Your task to perform on an android device: turn off location history Image 0: 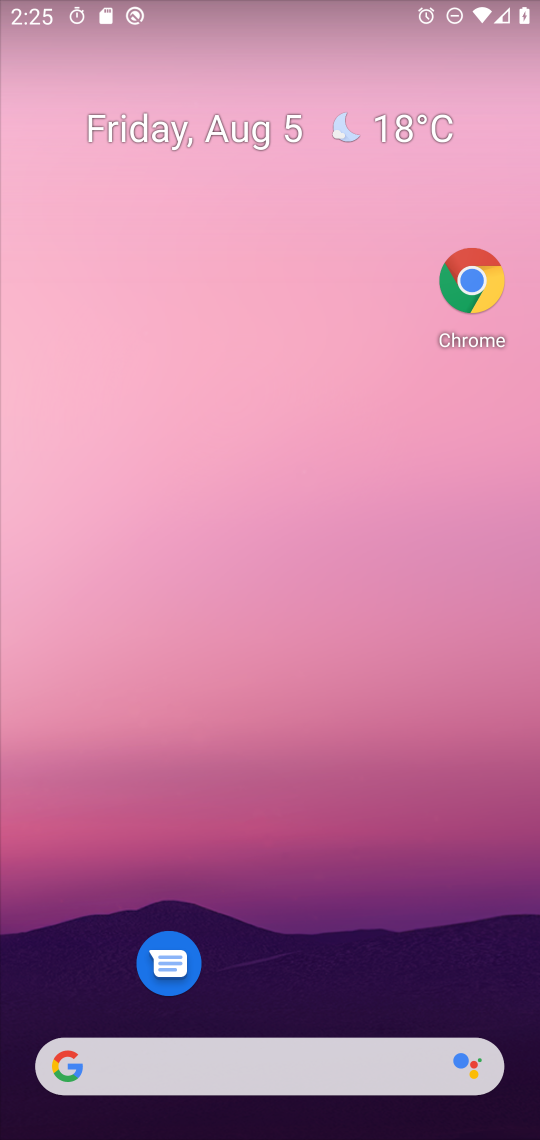
Step 0: drag from (323, 1009) to (263, 127)
Your task to perform on an android device: turn off location history Image 1: 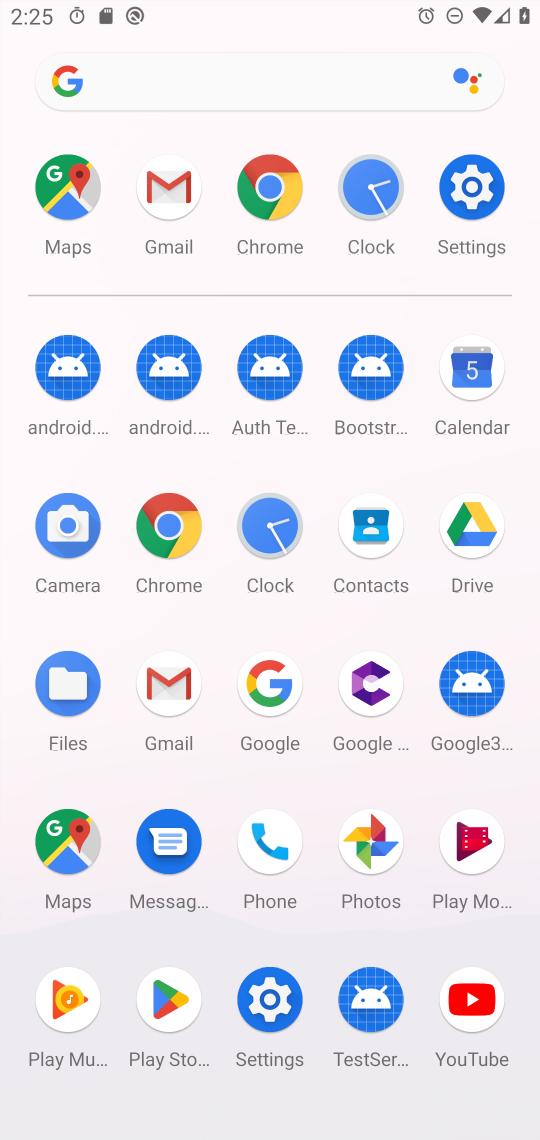
Step 1: click (480, 207)
Your task to perform on an android device: turn off location history Image 2: 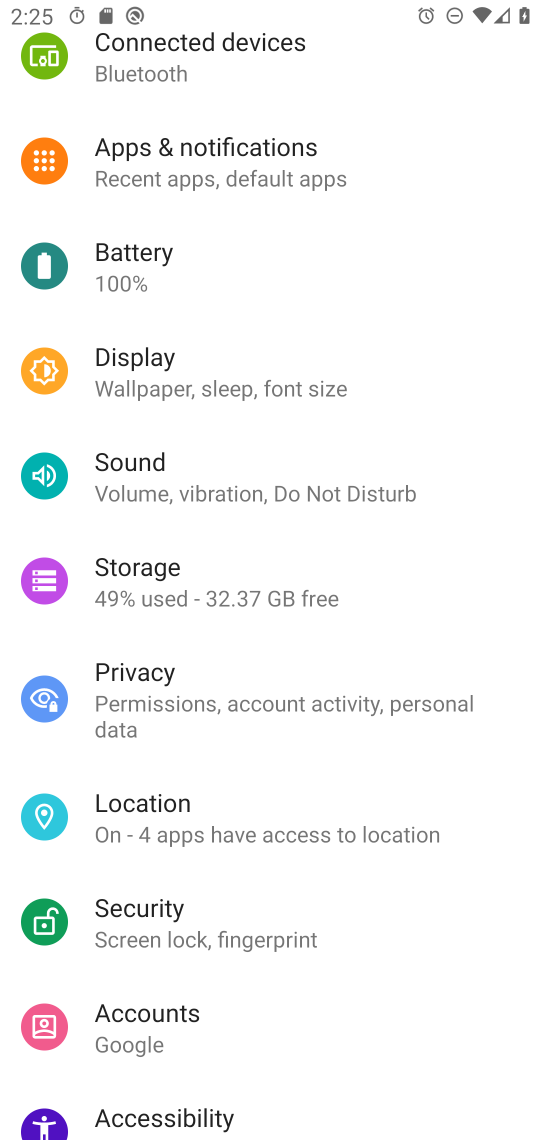
Step 2: click (210, 823)
Your task to perform on an android device: turn off location history Image 3: 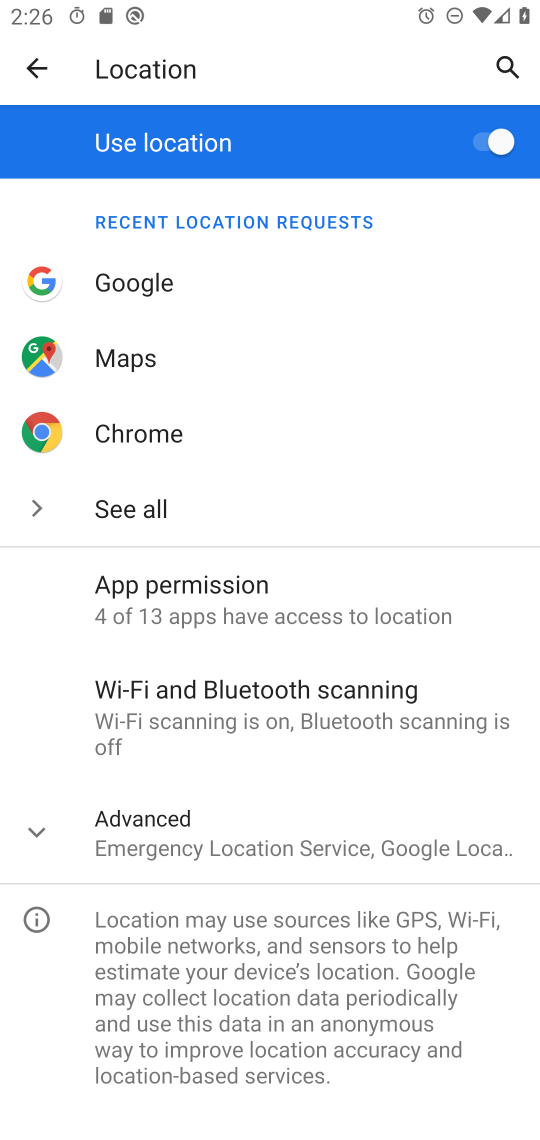
Step 3: click (237, 856)
Your task to perform on an android device: turn off location history Image 4: 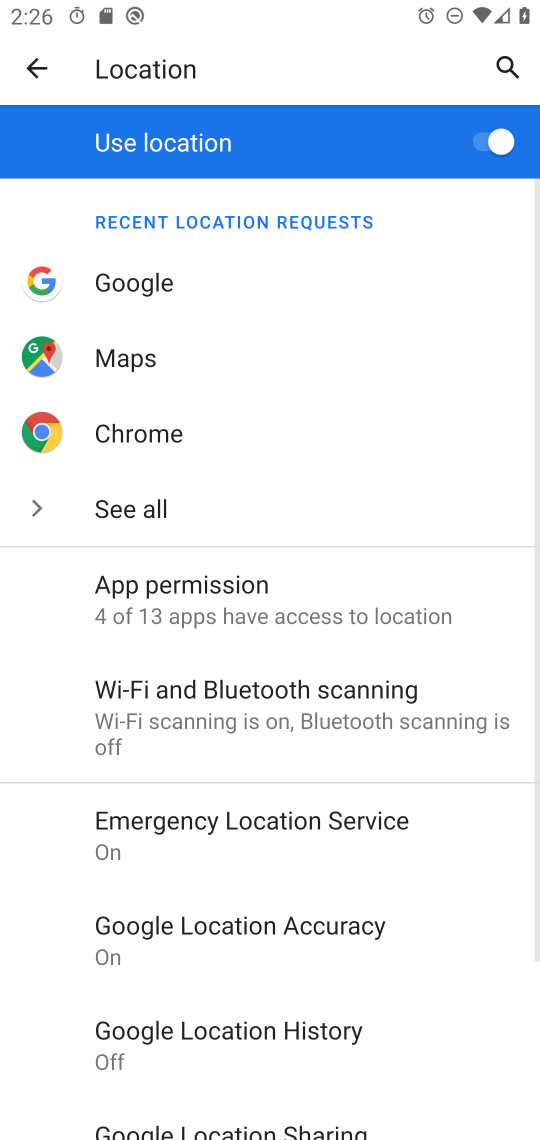
Step 4: drag from (220, 958) to (38, 256)
Your task to perform on an android device: turn off location history Image 5: 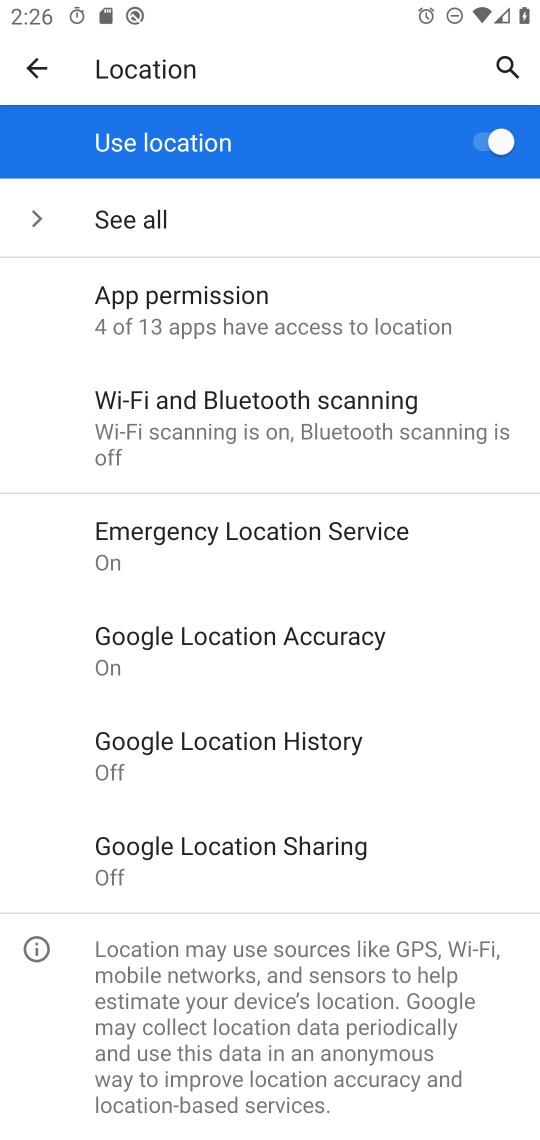
Step 5: click (149, 649)
Your task to perform on an android device: turn off location history Image 6: 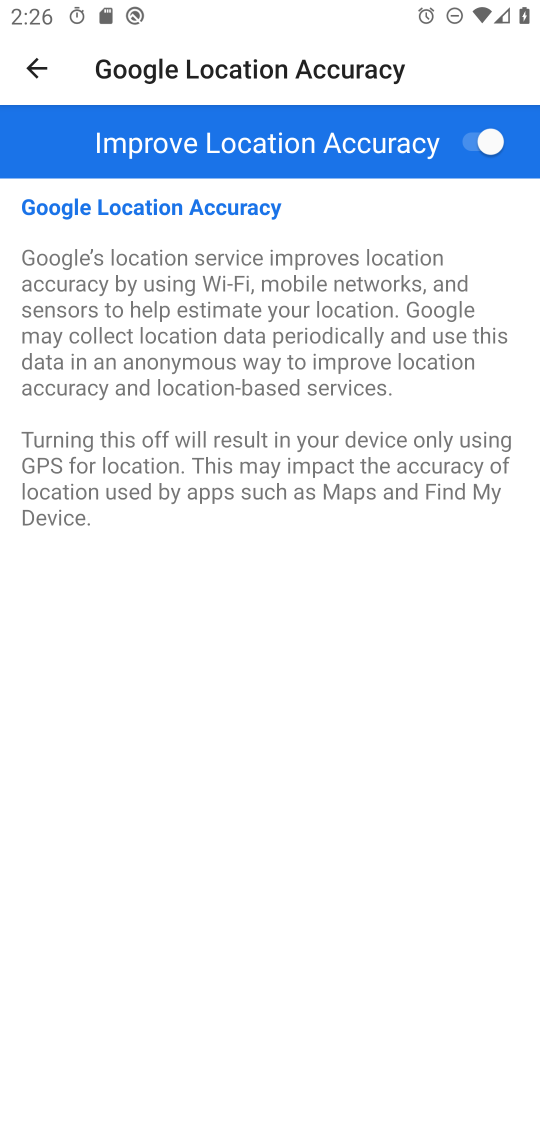
Step 6: click (484, 138)
Your task to perform on an android device: turn off location history Image 7: 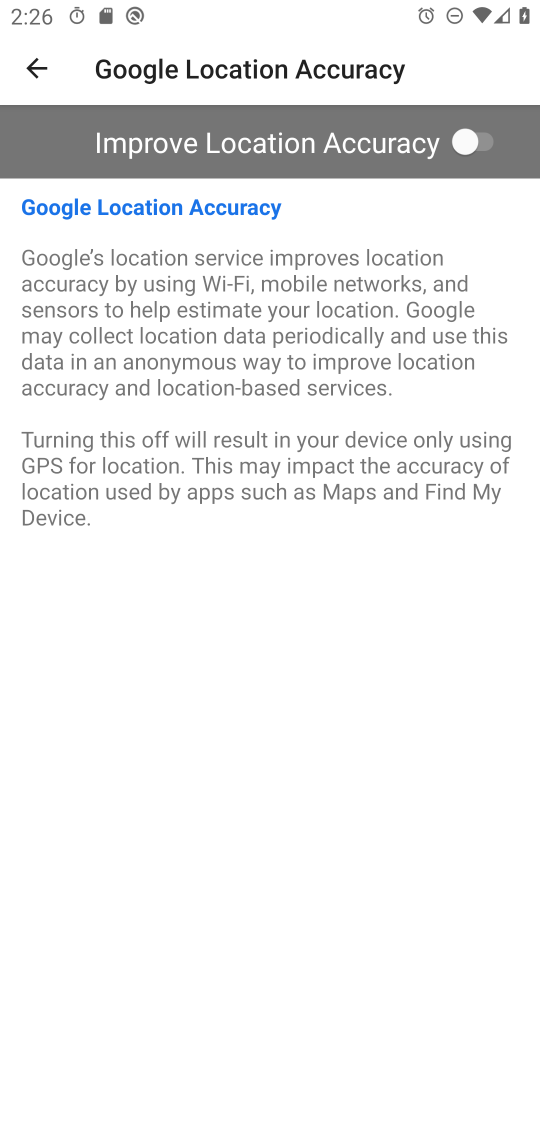
Step 7: task complete